Your task to perform on an android device: Go to Reddit.com Image 0: 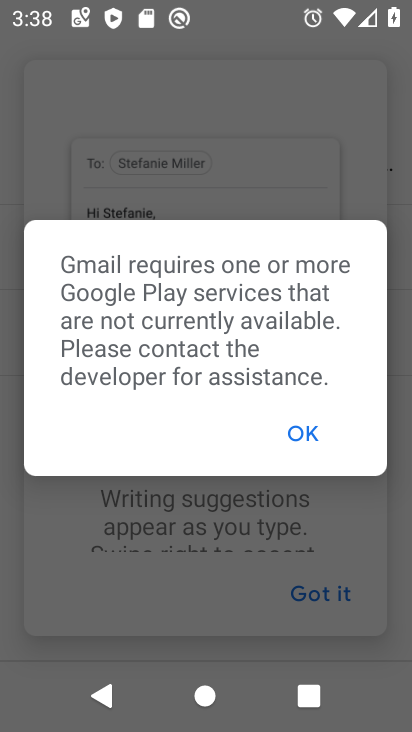
Step 0: press home button
Your task to perform on an android device: Go to Reddit.com Image 1: 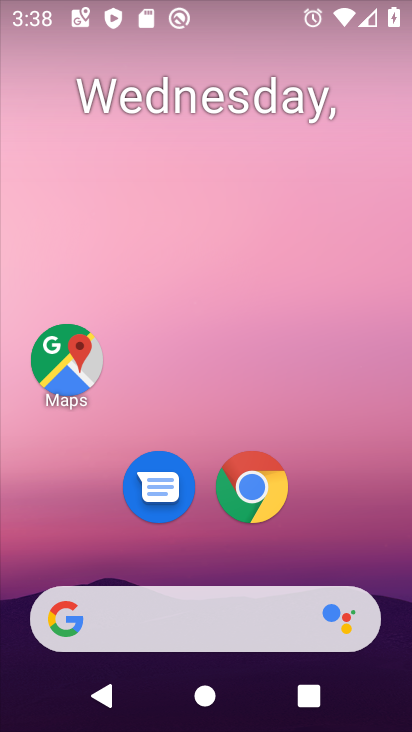
Step 1: drag from (353, 537) to (370, 202)
Your task to perform on an android device: Go to Reddit.com Image 2: 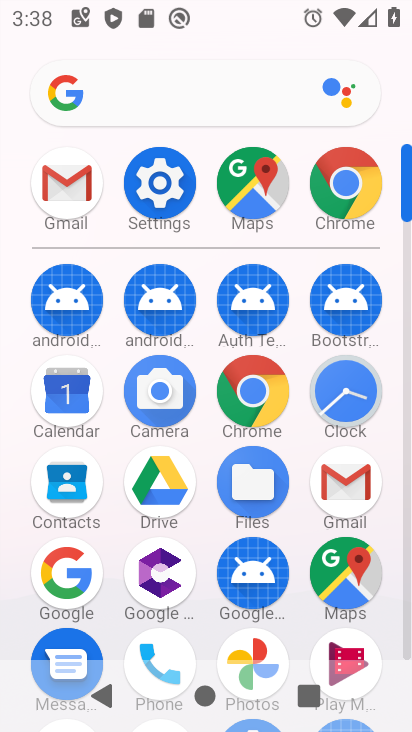
Step 2: click (269, 399)
Your task to perform on an android device: Go to Reddit.com Image 3: 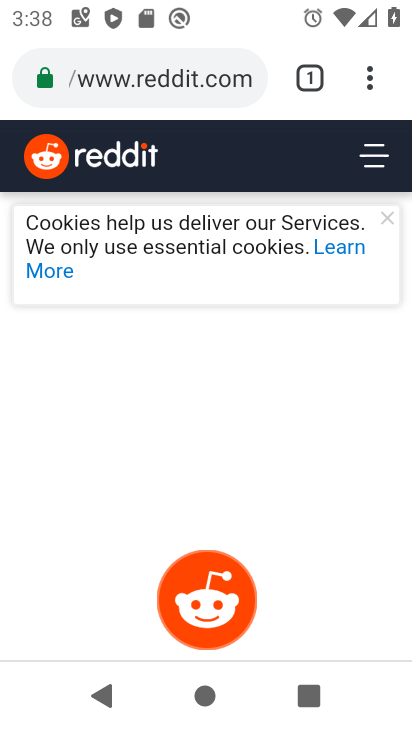
Step 3: task complete